Your task to perform on an android device: turn on the 24-hour format for clock Image 0: 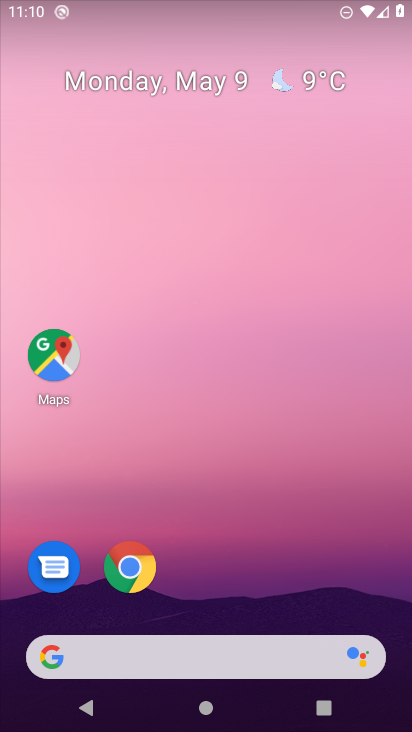
Step 0: drag from (219, 603) to (256, 68)
Your task to perform on an android device: turn on the 24-hour format for clock Image 1: 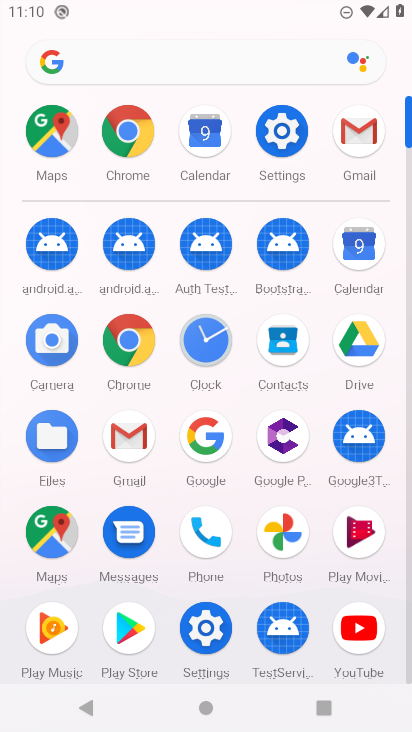
Step 1: click (205, 330)
Your task to perform on an android device: turn on the 24-hour format for clock Image 2: 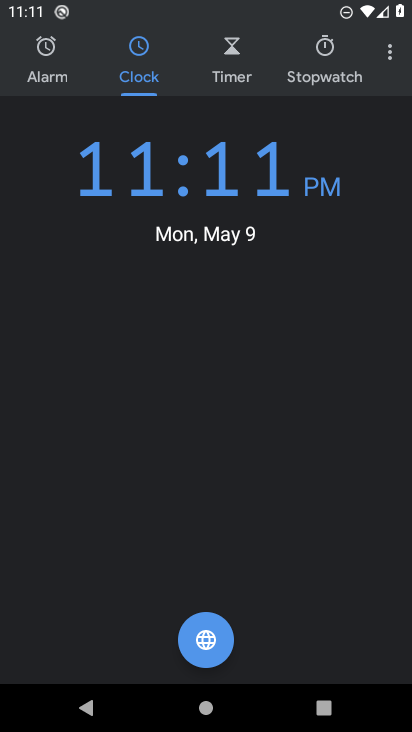
Step 2: click (380, 47)
Your task to perform on an android device: turn on the 24-hour format for clock Image 3: 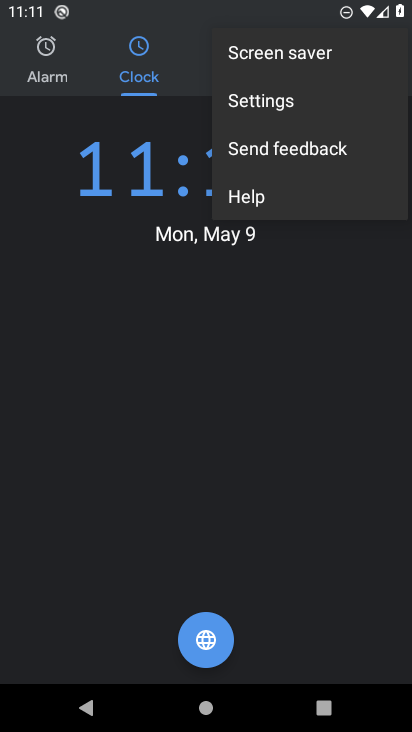
Step 3: click (292, 91)
Your task to perform on an android device: turn on the 24-hour format for clock Image 4: 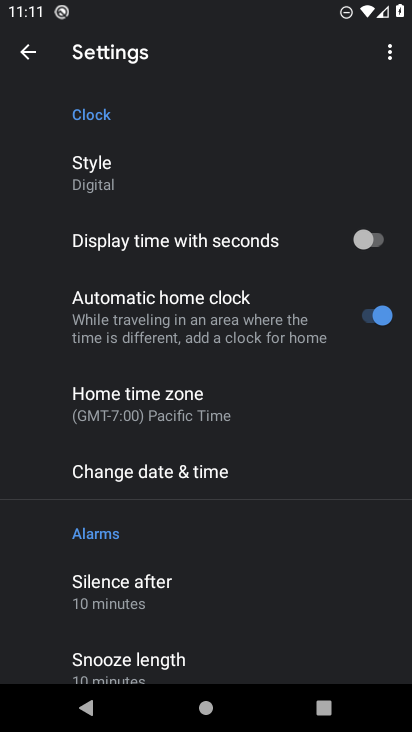
Step 4: click (241, 471)
Your task to perform on an android device: turn on the 24-hour format for clock Image 5: 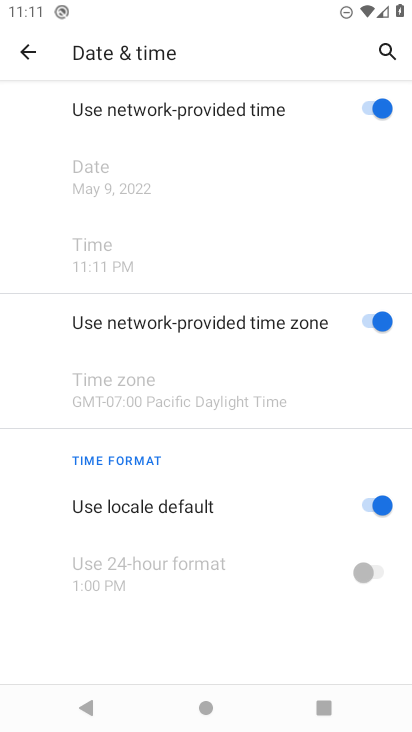
Step 5: click (368, 502)
Your task to perform on an android device: turn on the 24-hour format for clock Image 6: 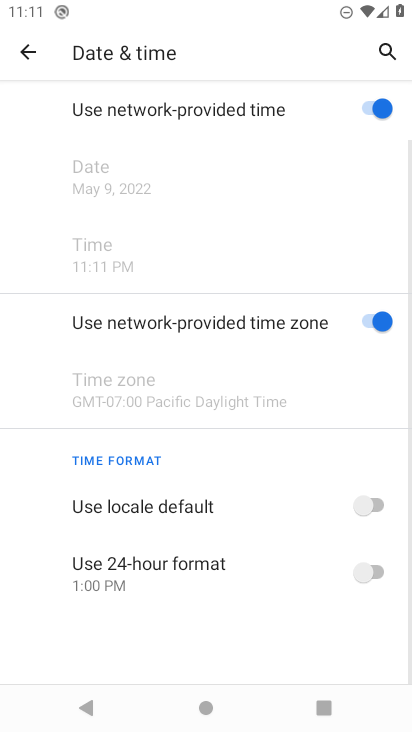
Step 6: click (370, 565)
Your task to perform on an android device: turn on the 24-hour format for clock Image 7: 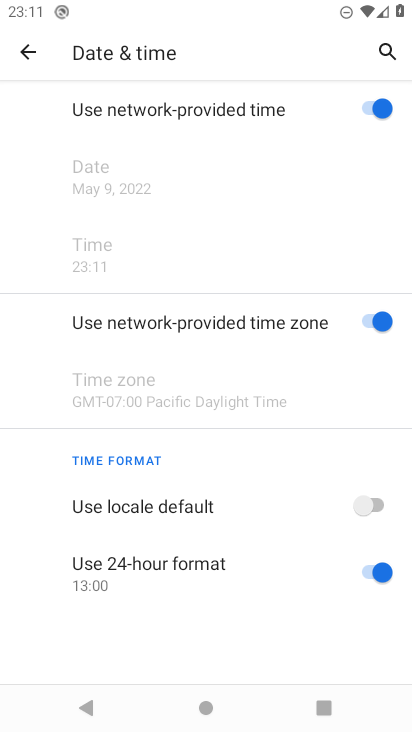
Step 7: task complete